Your task to perform on an android device: refresh tabs in the chrome app Image 0: 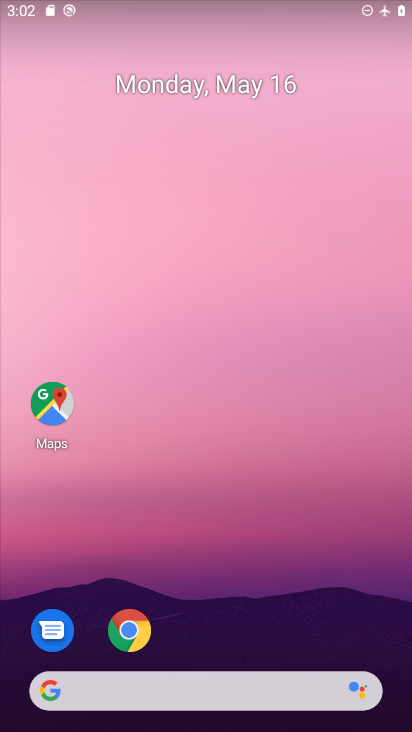
Step 0: drag from (257, 555) to (281, 80)
Your task to perform on an android device: refresh tabs in the chrome app Image 1: 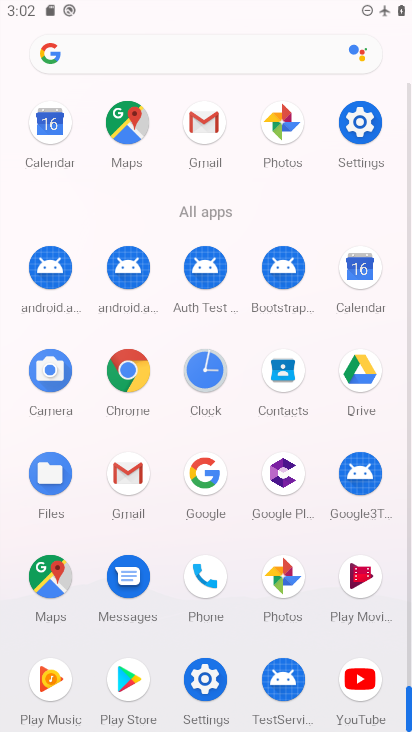
Step 1: drag from (9, 505) to (30, 256)
Your task to perform on an android device: refresh tabs in the chrome app Image 2: 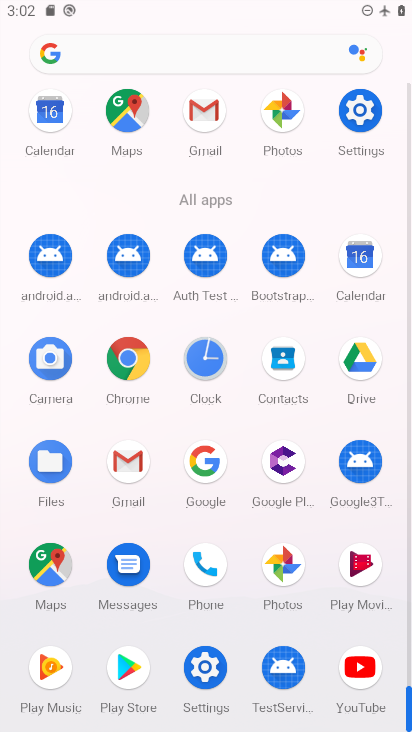
Step 2: click (124, 360)
Your task to perform on an android device: refresh tabs in the chrome app Image 3: 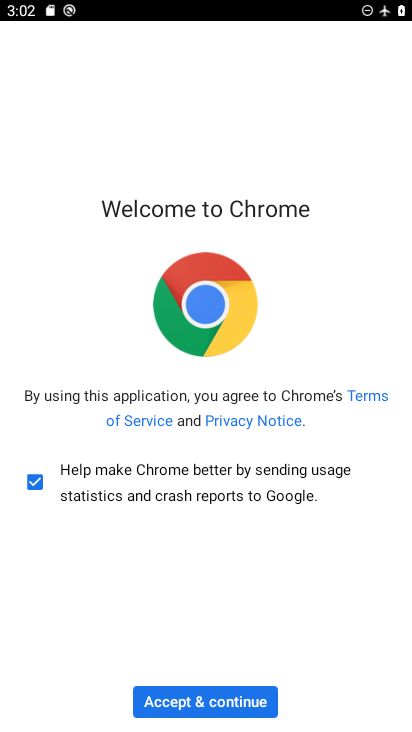
Step 3: click (187, 692)
Your task to perform on an android device: refresh tabs in the chrome app Image 4: 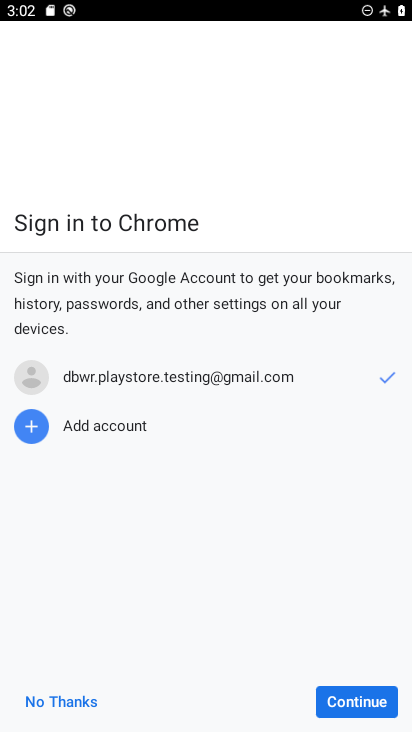
Step 4: click (342, 699)
Your task to perform on an android device: refresh tabs in the chrome app Image 5: 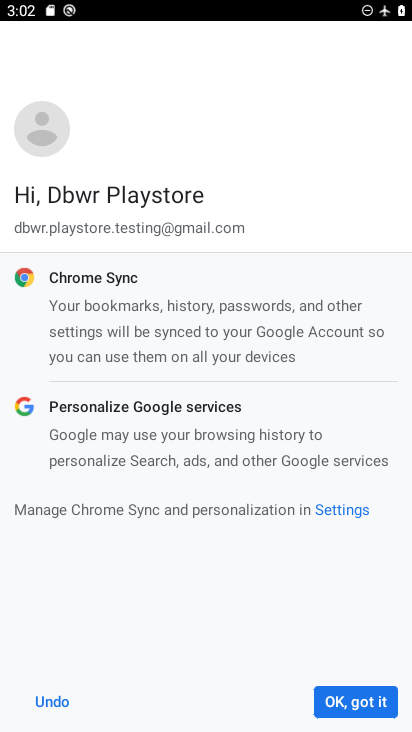
Step 5: click (327, 699)
Your task to perform on an android device: refresh tabs in the chrome app Image 6: 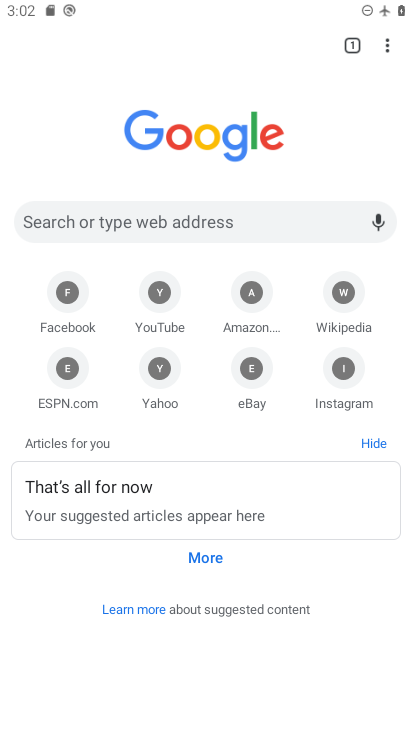
Step 6: drag from (385, 50) to (250, 95)
Your task to perform on an android device: refresh tabs in the chrome app Image 7: 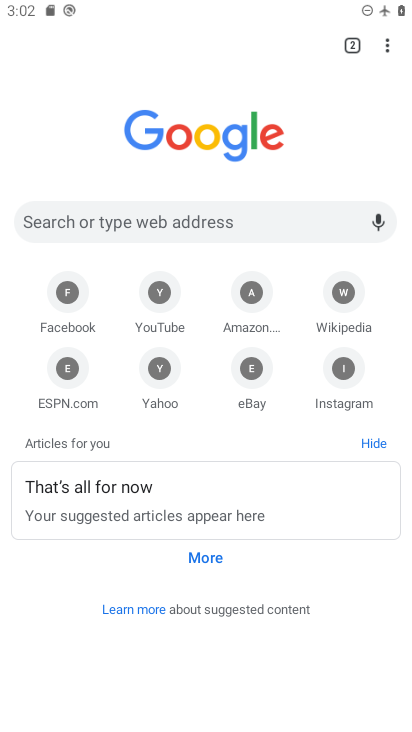
Step 7: click (381, 43)
Your task to perform on an android device: refresh tabs in the chrome app Image 8: 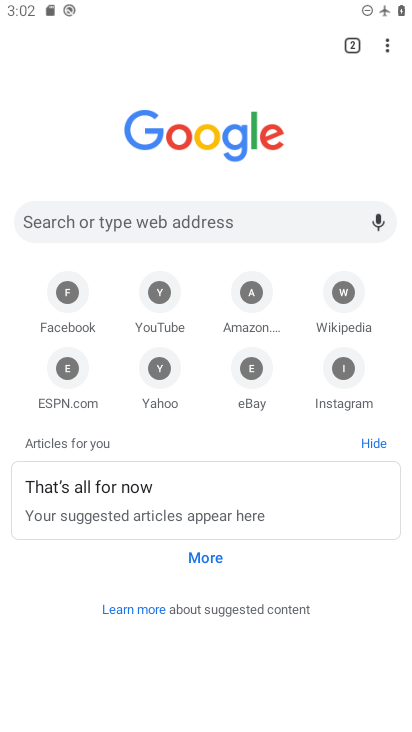
Step 8: click (381, 43)
Your task to perform on an android device: refresh tabs in the chrome app Image 9: 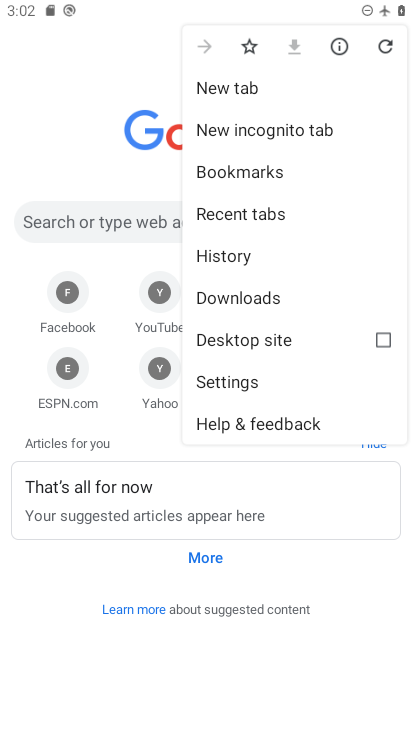
Step 9: click (381, 43)
Your task to perform on an android device: refresh tabs in the chrome app Image 10: 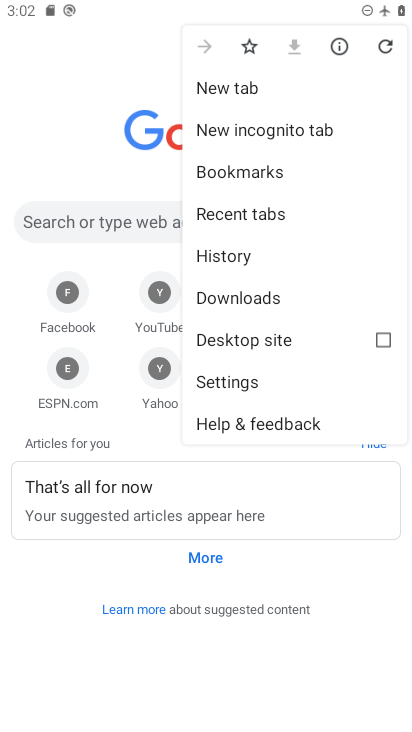
Step 10: click (381, 43)
Your task to perform on an android device: refresh tabs in the chrome app Image 11: 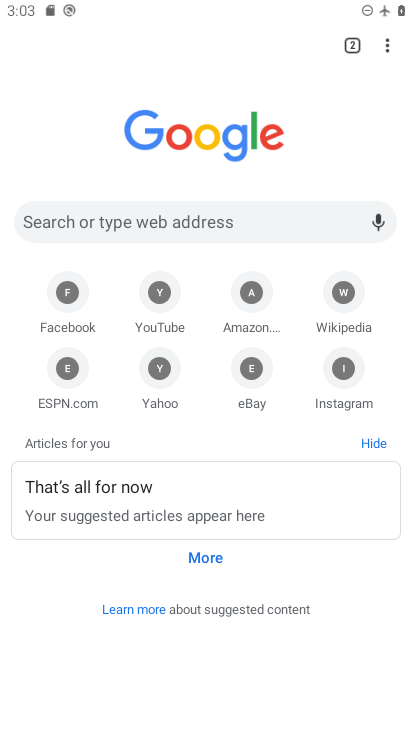
Step 11: task complete